Your task to perform on an android device: move an email to a new category in the gmail app Image 0: 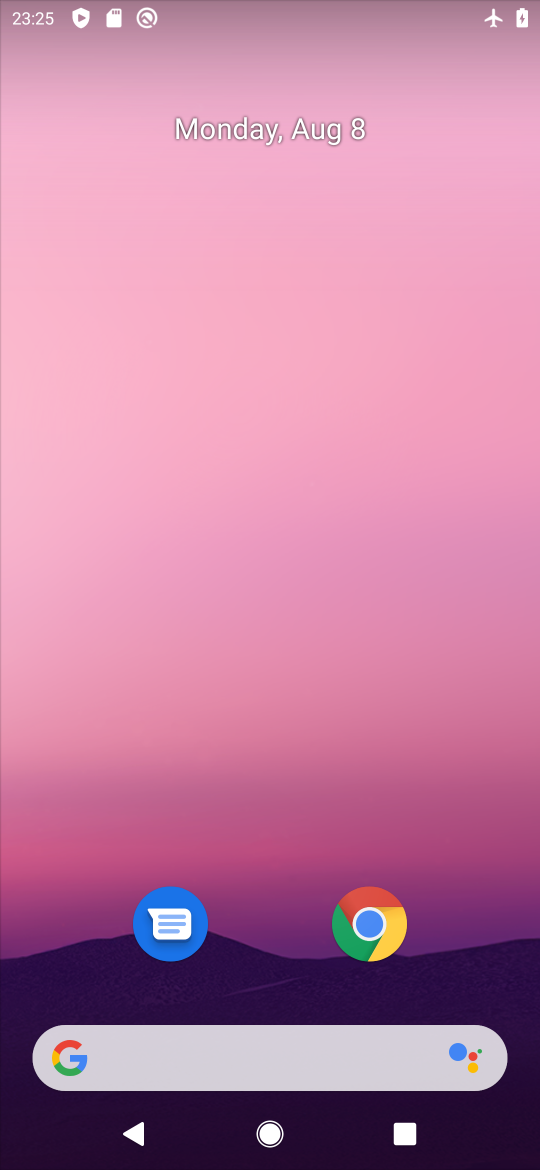
Step 0: drag from (320, 992) to (295, 50)
Your task to perform on an android device: move an email to a new category in the gmail app Image 1: 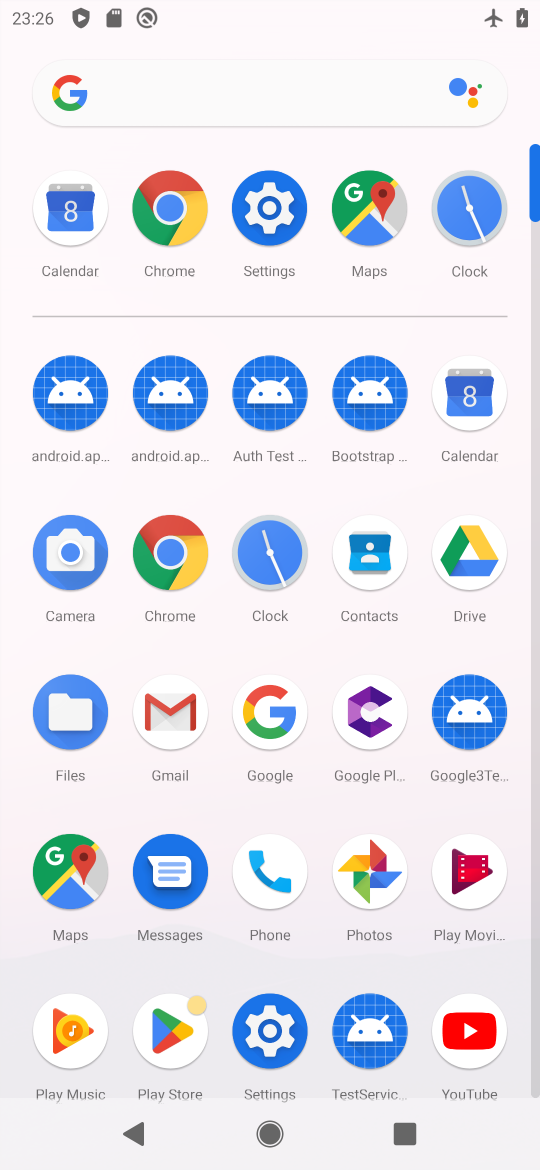
Step 1: click (185, 719)
Your task to perform on an android device: move an email to a new category in the gmail app Image 2: 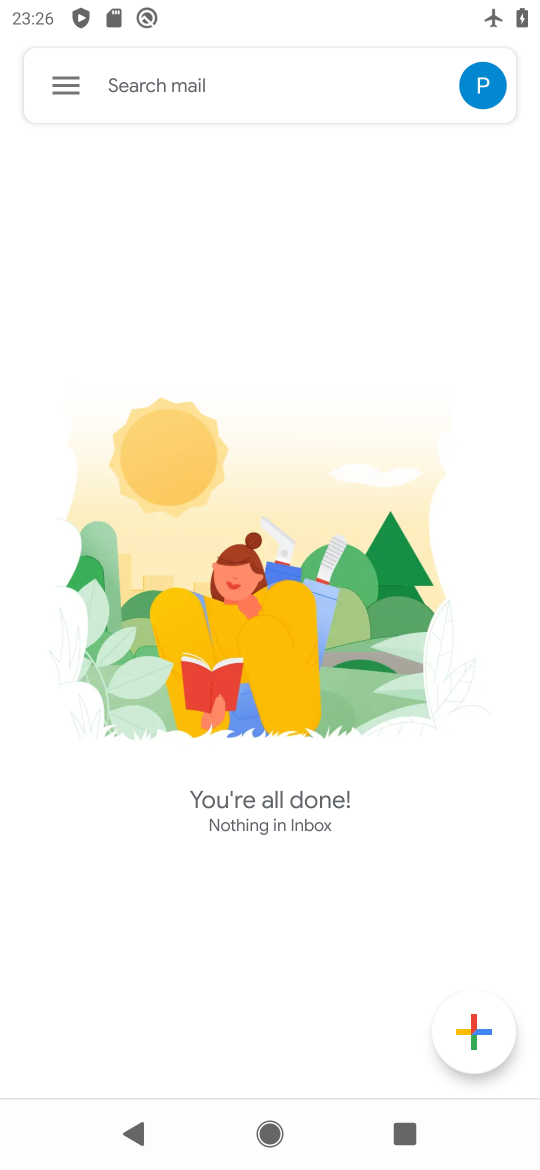
Step 2: task complete